Your task to perform on an android device: check the backup settings in the google photos Image 0: 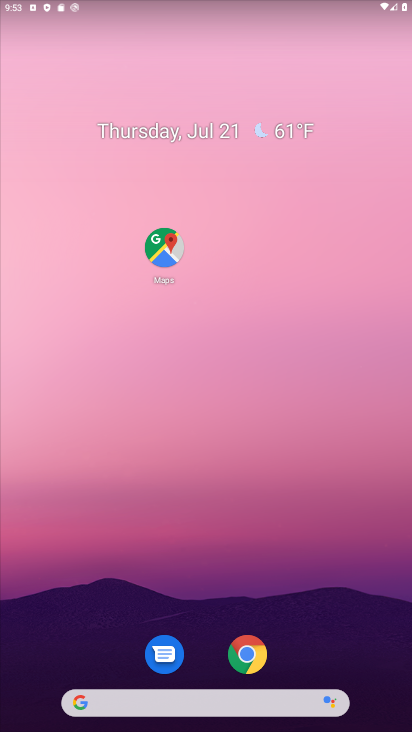
Step 0: drag from (67, 640) to (242, 141)
Your task to perform on an android device: check the backup settings in the google photos Image 1: 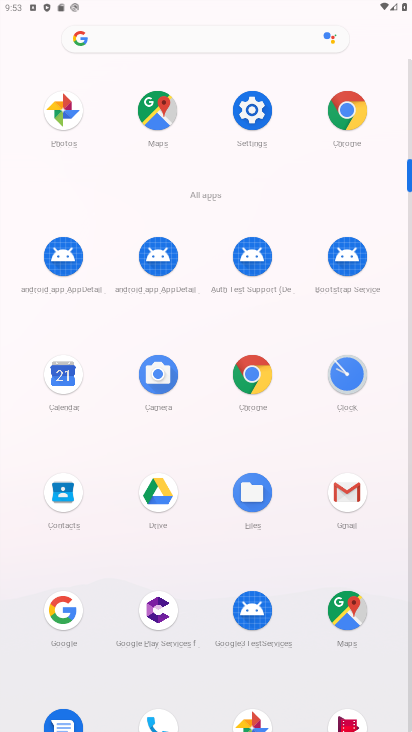
Step 1: click (239, 108)
Your task to perform on an android device: check the backup settings in the google photos Image 2: 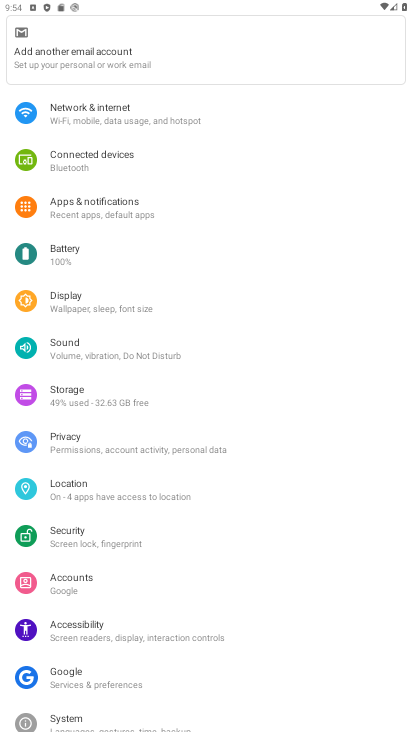
Step 2: press home button
Your task to perform on an android device: check the backup settings in the google photos Image 3: 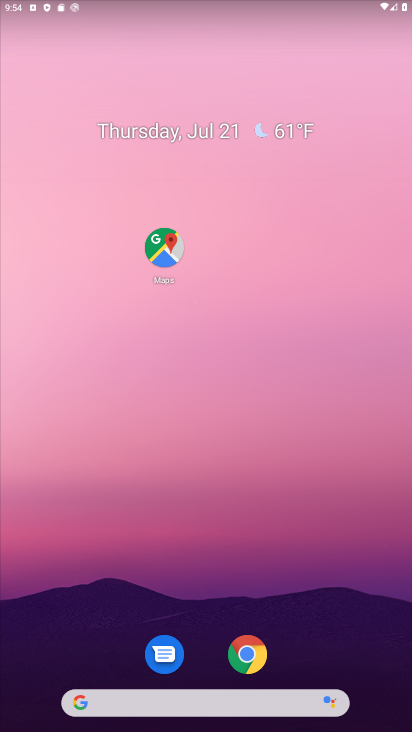
Step 3: drag from (39, 679) to (163, 222)
Your task to perform on an android device: check the backup settings in the google photos Image 4: 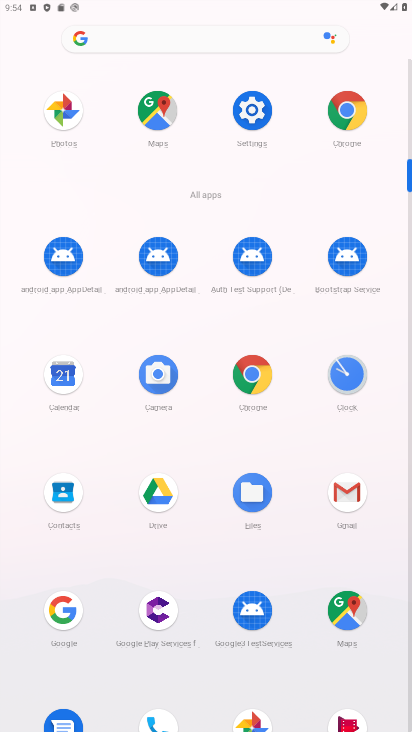
Step 4: click (262, 717)
Your task to perform on an android device: check the backup settings in the google photos Image 5: 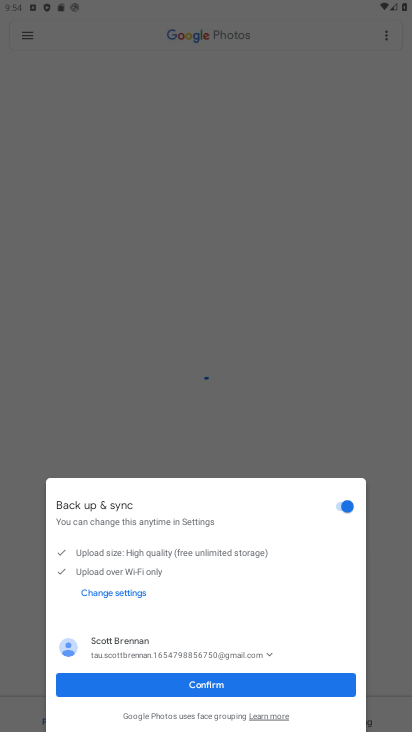
Step 5: click (175, 686)
Your task to perform on an android device: check the backup settings in the google photos Image 6: 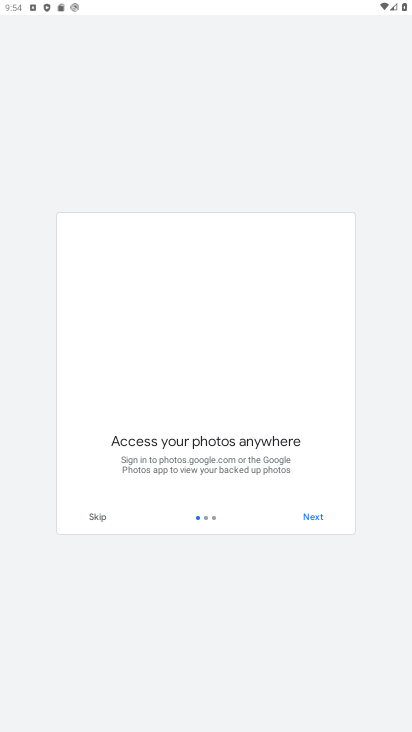
Step 6: click (310, 515)
Your task to perform on an android device: check the backup settings in the google photos Image 7: 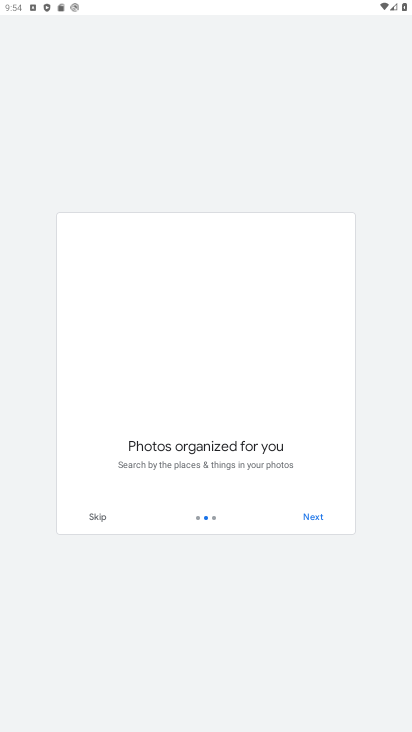
Step 7: click (321, 511)
Your task to perform on an android device: check the backup settings in the google photos Image 8: 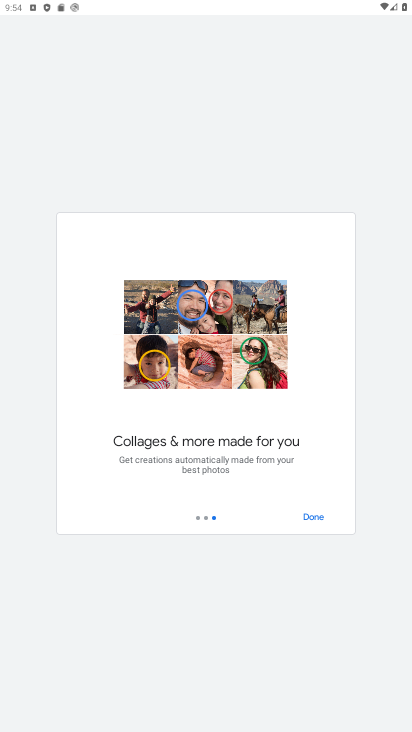
Step 8: click (311, 512)
Your task to perform on an android device: check the backup settings in the google photos Image 9: 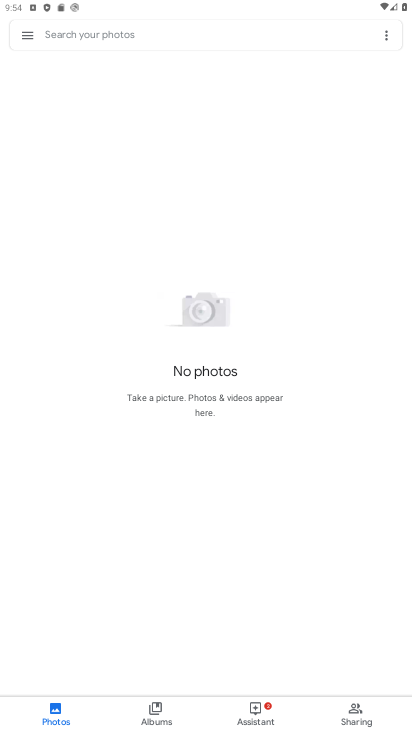
Step 9: click (18, 37)
Your task to perform on an android device: check the backup settings in the google photos Image 10: 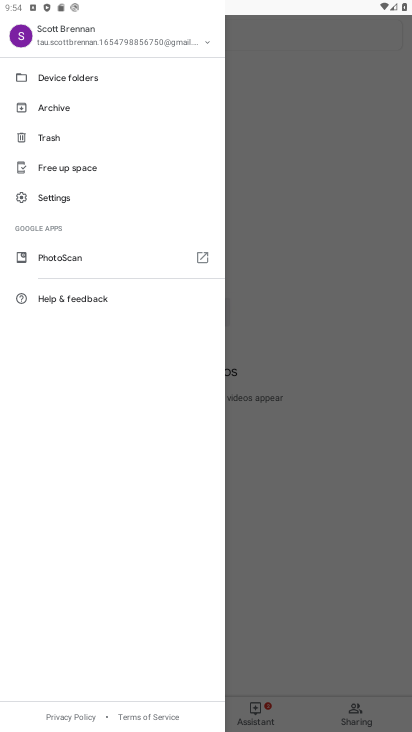
Step 10: click (76, 196)
Your task to perform on an android device: check the backup settings in the google photos Image 11: 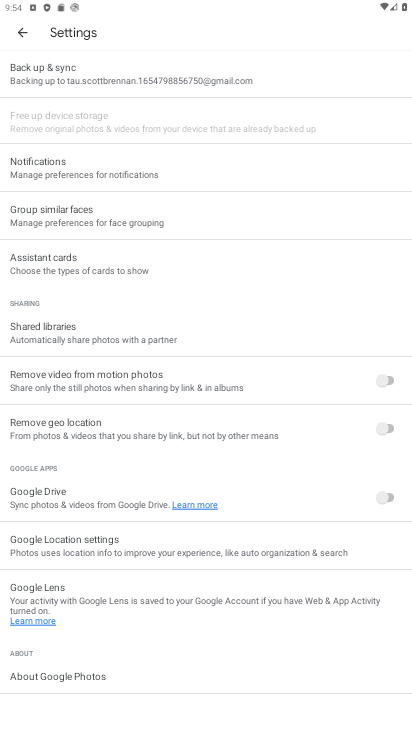
Step 11: click (90, 69)
Your task to perform on an android device: check the backup settings in the google photos Image 12: 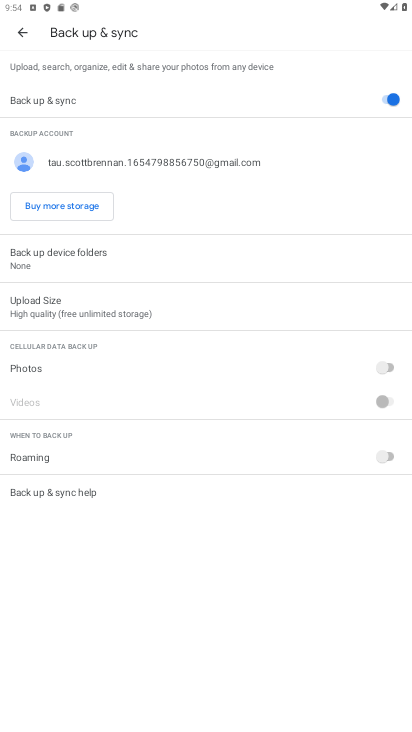
Step 12: task complete